Your task to perform on an android device: What is the news today? Image 0: 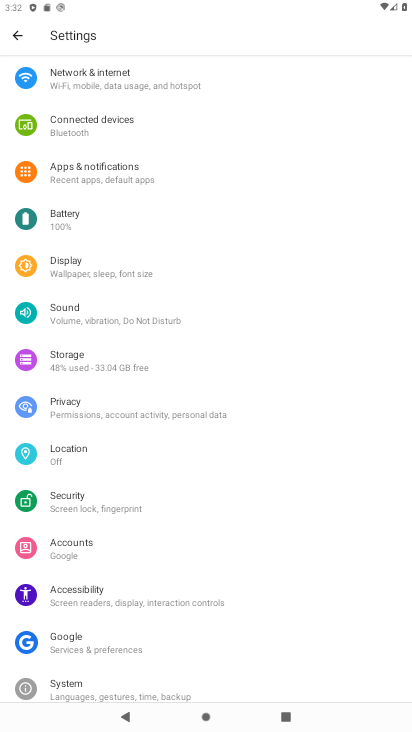
Step 0: type ""
Your task to perform on an android device: What is the news today? Image 1: 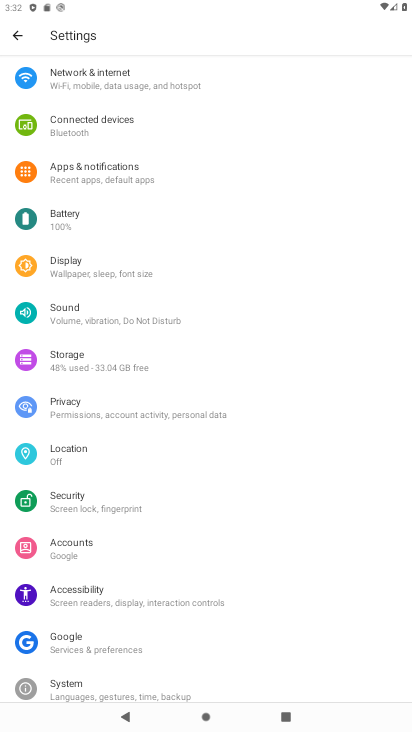
Step 1: task complete